Your task to perform on an android device: open sync settings in chrome Image 0: 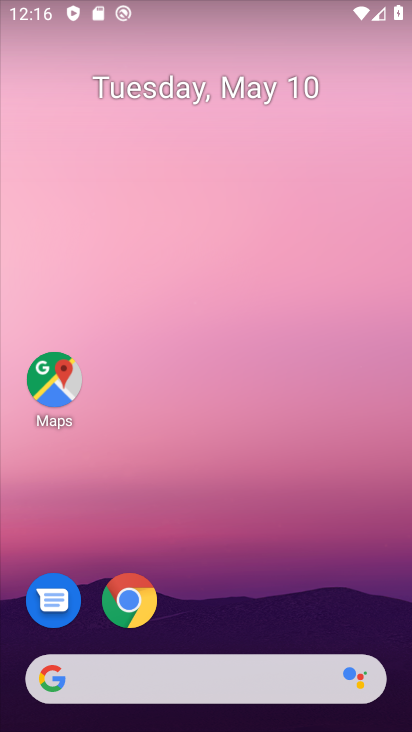
Step 0: click (128, 607)
Your task to perform on an android device: open sync settings in chrome Image 1: 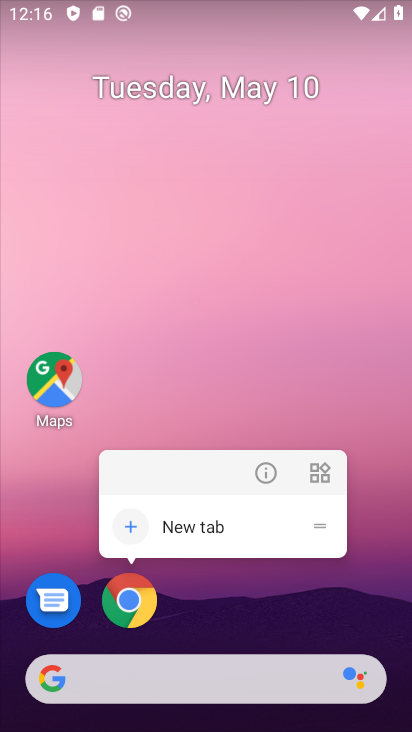
Step 1: click (135, 608)
Your task to perform on an android device: open sync settings in chrome Image 2: 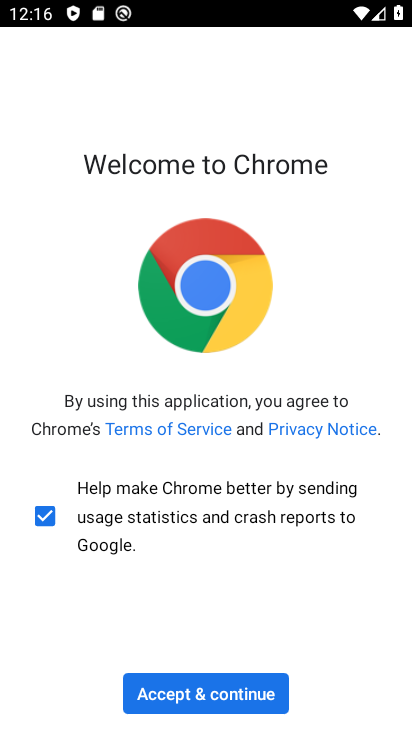
Step 2: click (251, 691)
Your task to perform on an android device: open sync settings in chrome Image 3: 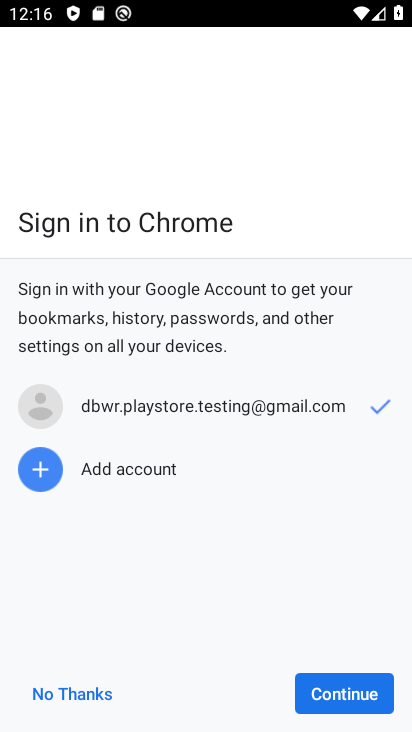
Step 3: click (356, 696)
Your task to perform on an android device: open sync settings in chrome Image 4: 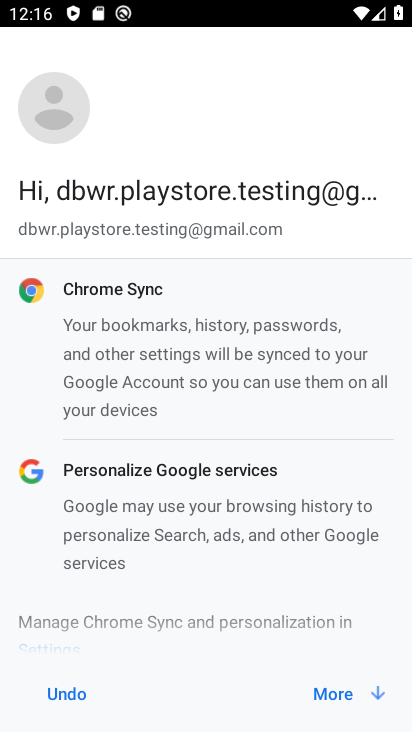
Step 4: click (356, 696)
Your task to perform on an android device: open sync settings in chrome Image 5: 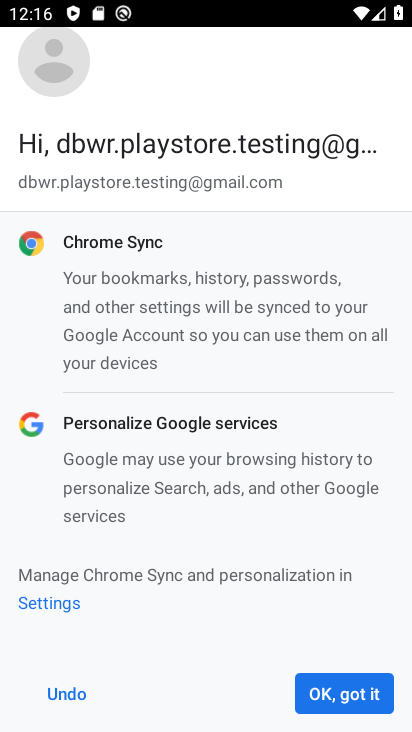
Step 5: click (356, 696)
Your task to perform on an android device: open sync settings in chrome Image 6: 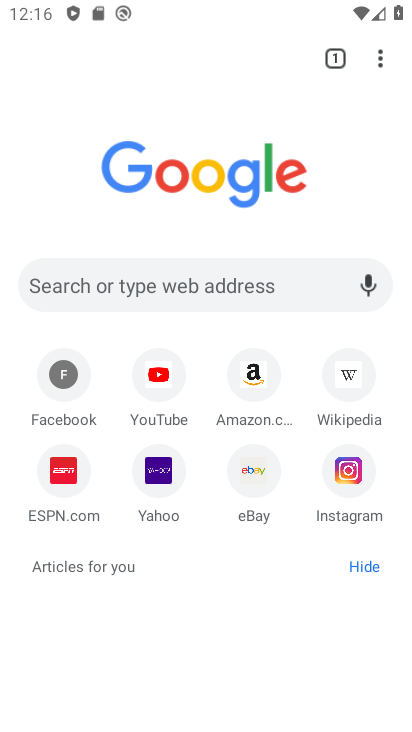
Step 6: drag from (387, 76) to (245, 490)
Your task to perform on an android device: open sync settings in chrome Image 7: 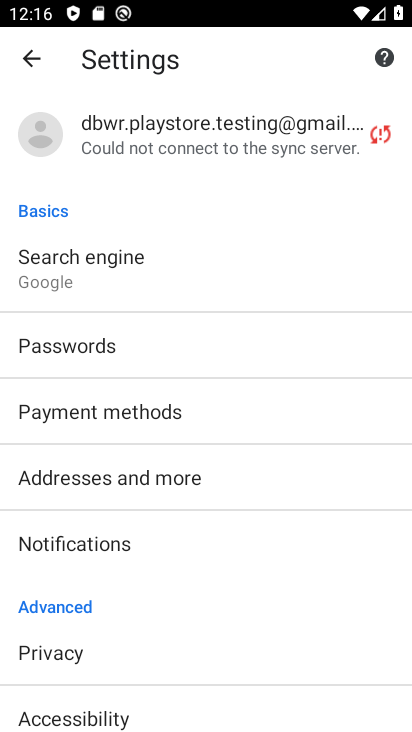
Step 7: click (210, 167)
Your task to perform on an android device: open sync settings in chrome Image 8: 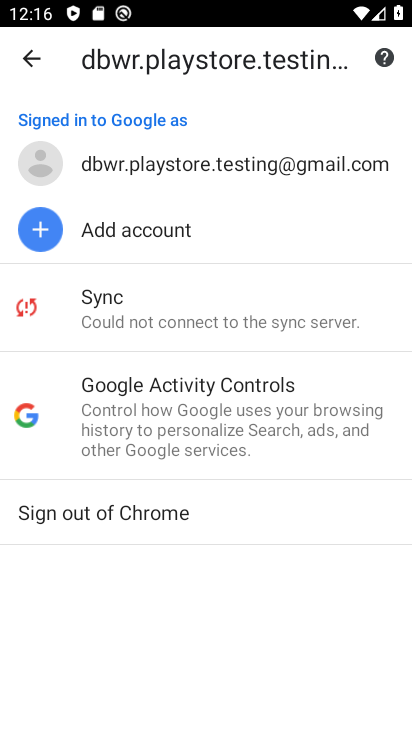
Step 8: click (194, 312)
Your task to perform on an android device: open sync settings in chrome Image 9: 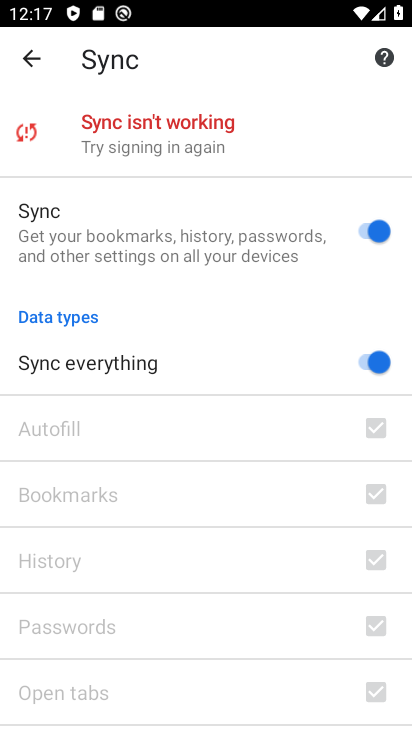
Step 9: task complete